Your task to perform on an android device: Show the shopping cart on costco.com. Add "asus zenbook" to the cart on costco.com Image 0: 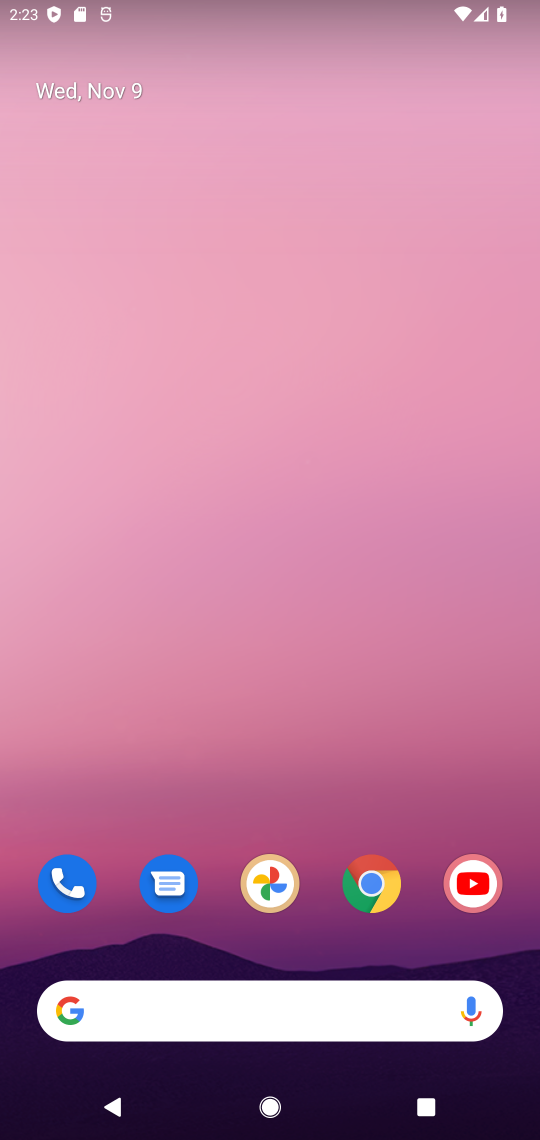
Step 0: click (369, 889)
Your task to perform on an android device: Show the shopping cart on costco.com. Add "asus zenbook" to the cart on costco.com Image 1: 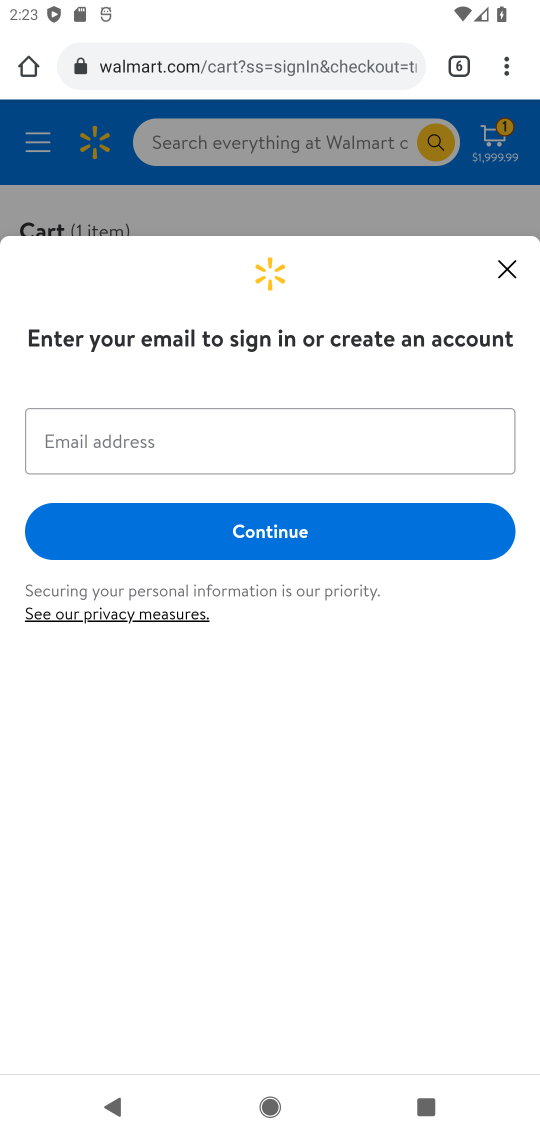
Step 1: click (462, 67)
Your task to perform on an android device: Show the shopping cart on costco.com. Add "asus zenbook" to the cart on costco.com Image 2: 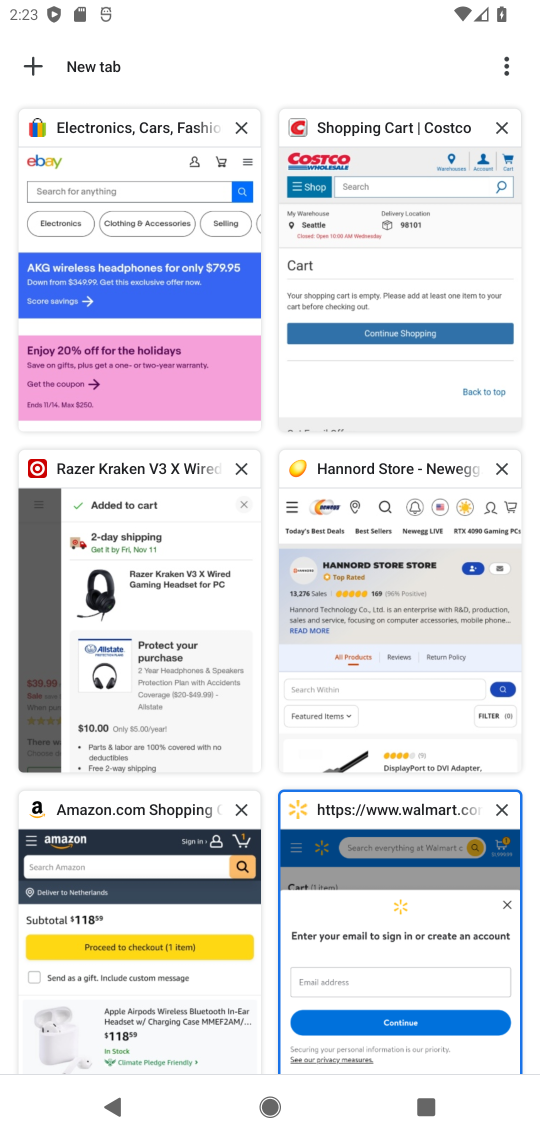
Step 2: click (398, 225)
Your task to perform on an android device: Show the shopping cart on costco.com. Add "asus zenbook" to the cart on costco.com Image 3: 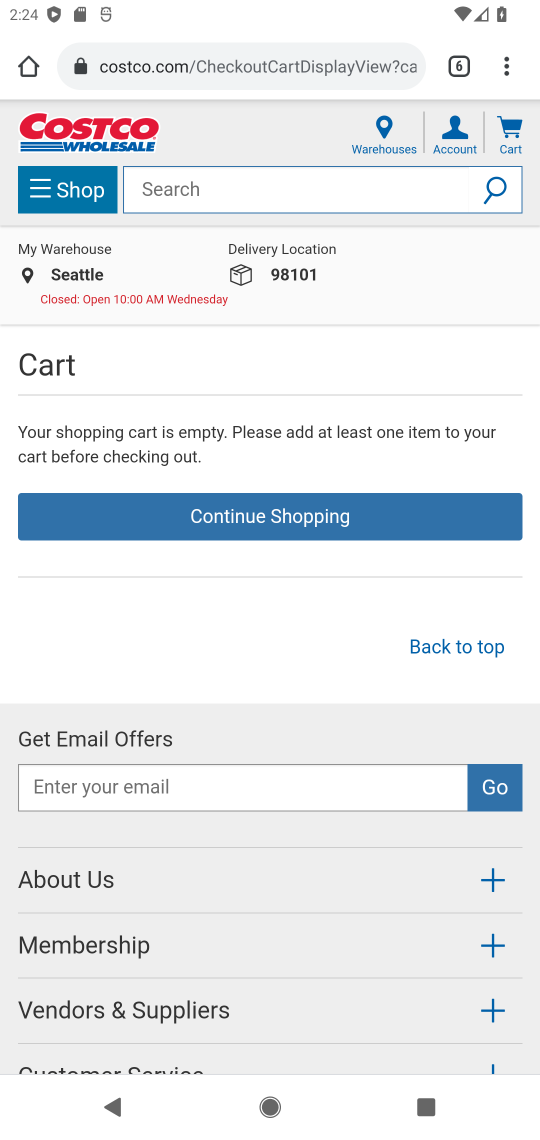
Step 3: click (216, 197)
Your task to perform on an android device: Show the shopping cart on costco.com. Add "asus zenbook" to the cart on costco.com Image 4: 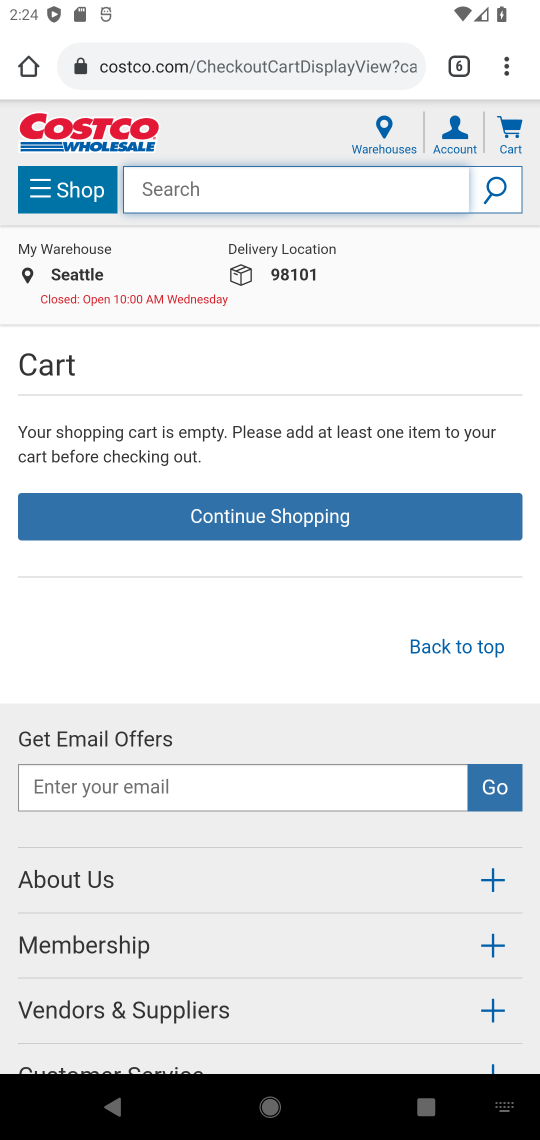
Step 4: type "asus zenbook"
Your task to perform on an android device: Show the shopping cart on costco.com. Add "asus zenbook" to the cart on costco.com Image 5: 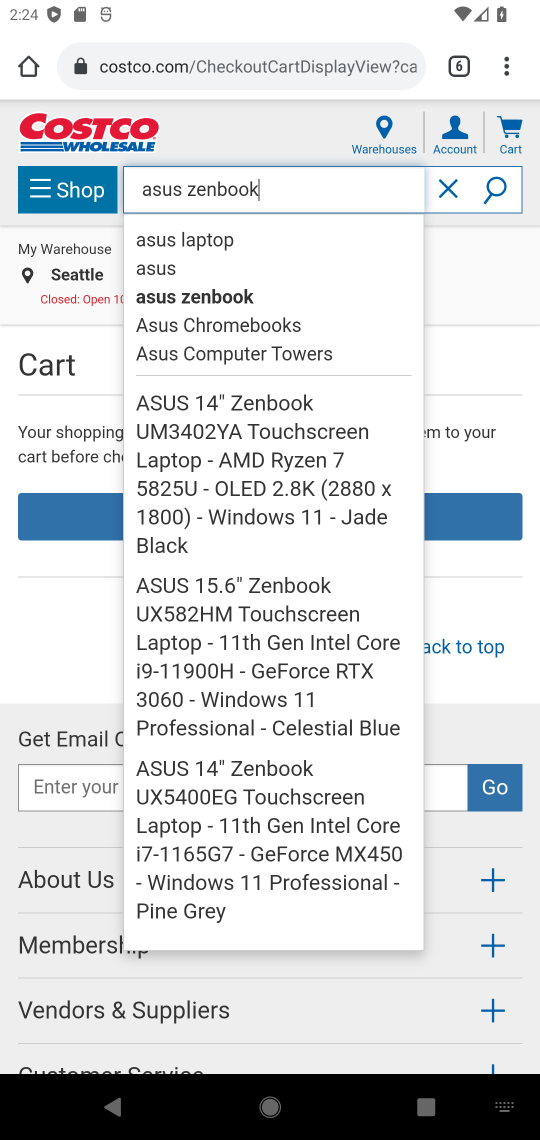
Step 5: click (227, 300)
Your task to perform on an android device: Show the shopping cart on costco.com. Add "asus zenbook" to the cart on costco.com Image 6: 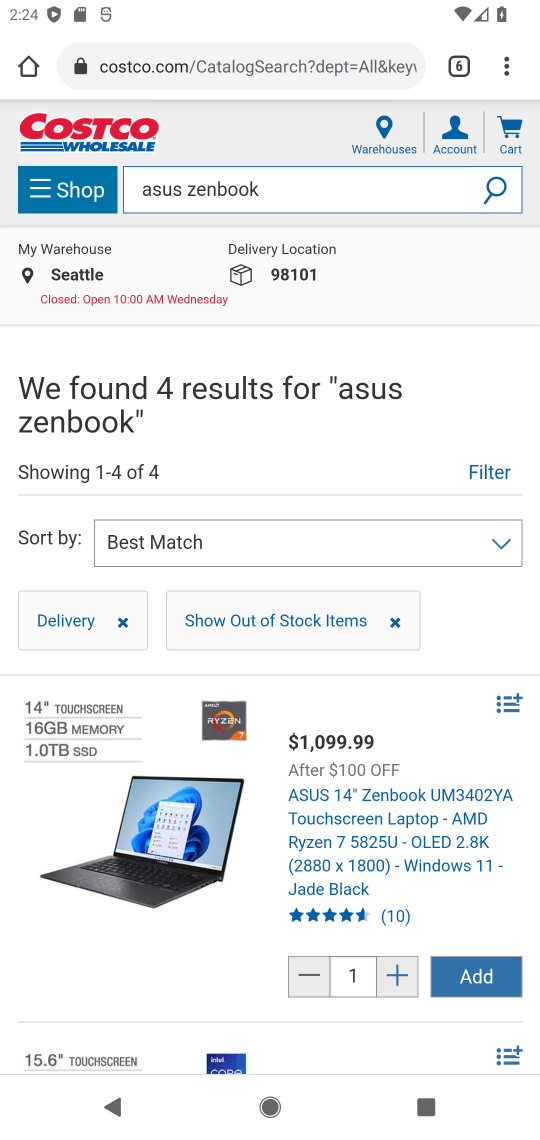
Step 6: click (466, 970)
Your task to perform on an android device: Show the shopping cart on costco.com. Add "asus zenbook" to the cart on costco.com Image 7: 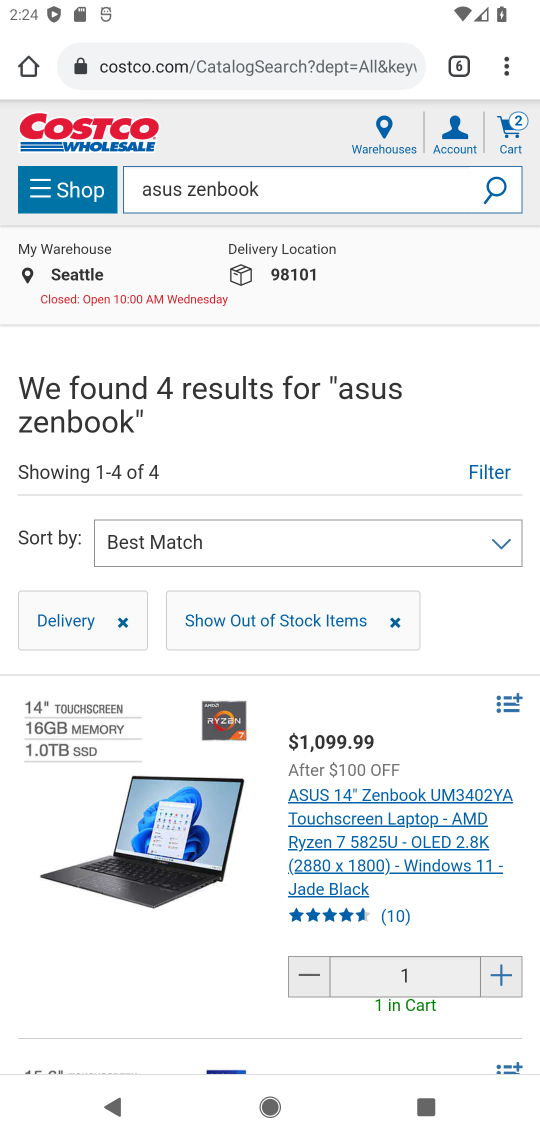
Step 7: task complete